Your task to perform on an android device: What's the weather going to be this weekend? Image 0: 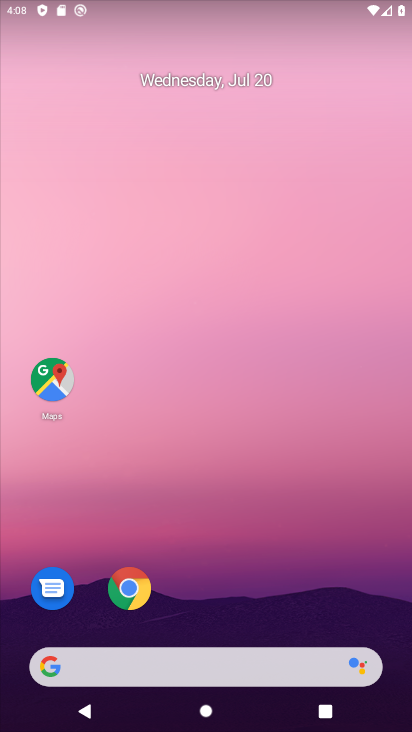
Step 0: click (201, 658)
Your task to perform on an android device: What's the weather going to be this weekend? Image 1: 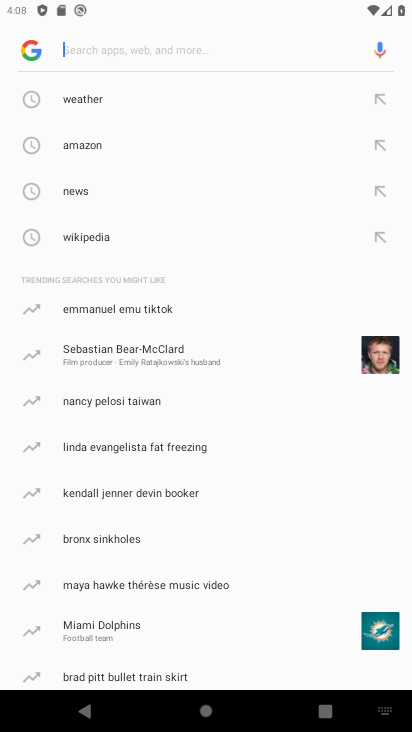
Step 1: type "What's the weather going to be this weekend?"
Your task to perform on an android device: What's the weather going to be this weekend? Image 2: 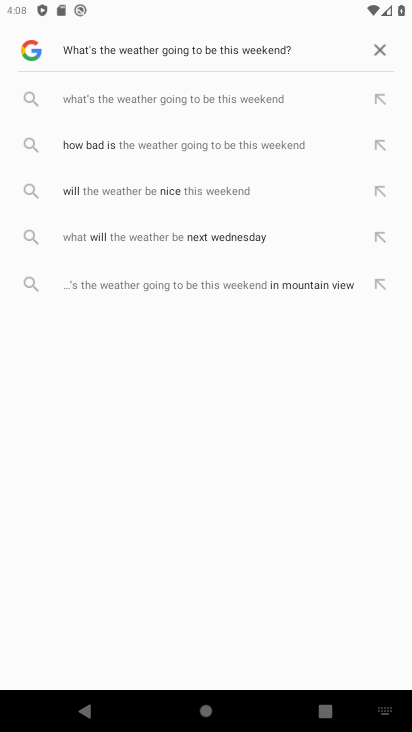
Step 2: click (224, 93)
Your task to perform on an android device: What's the weather going to be this weekend? Image 3: 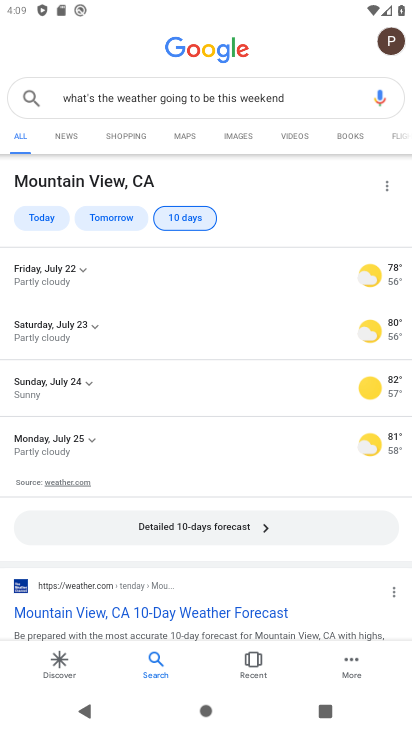
Step 3: click (237, 527)
Your task to perform on an android device: What's the weather going to be this weekend? Image 4: 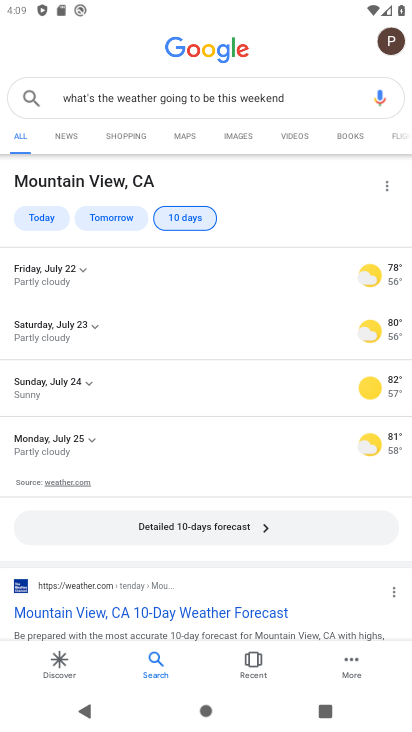
Step 4: task complete